Your task to perform on an android device: install app "Spotify" Image 0: 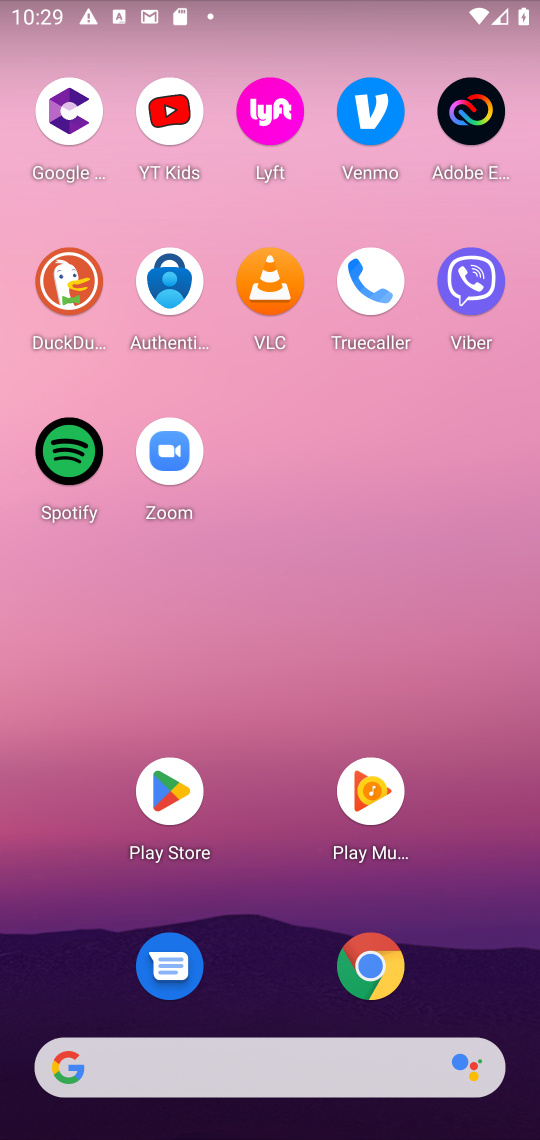
Step 0: press home button
Your task to perform on an android device: install app "Spotify" Image 1: 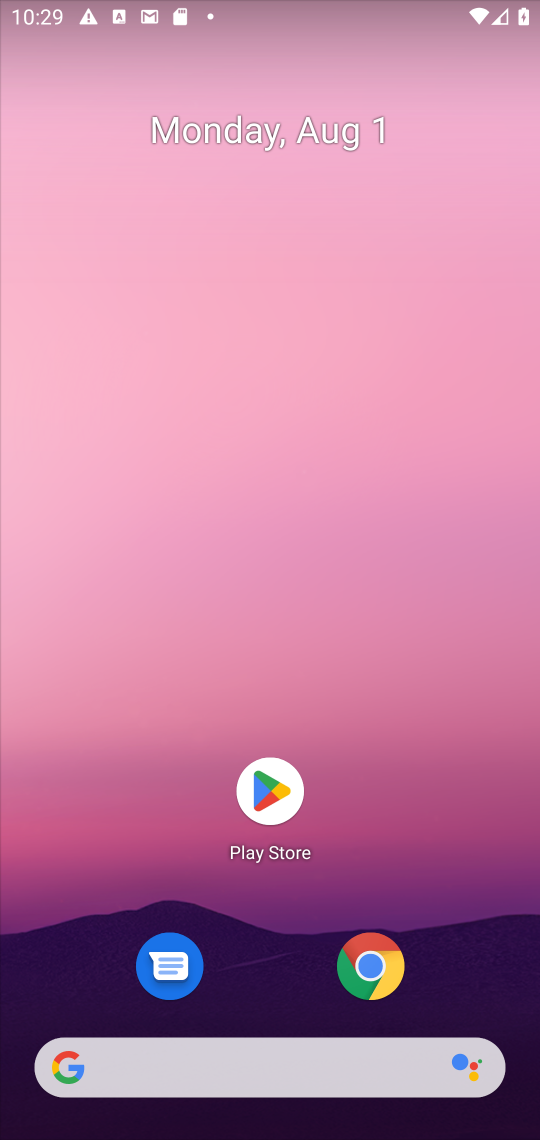
Step 1: task complete